Your task to perform on an android device: Go to notification settings Image 0: 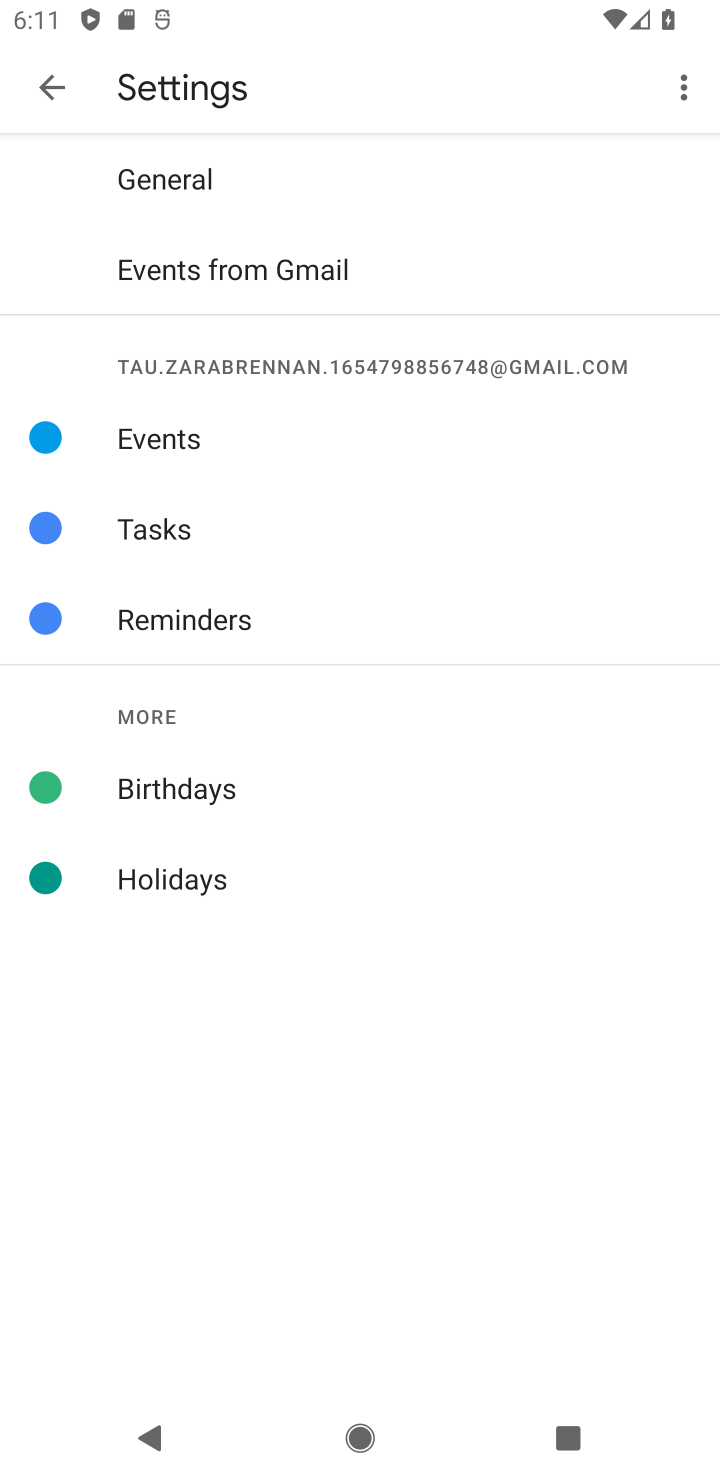
Step 0: press home button
Your task to perform on an android device: Go to notification settings Image 1: 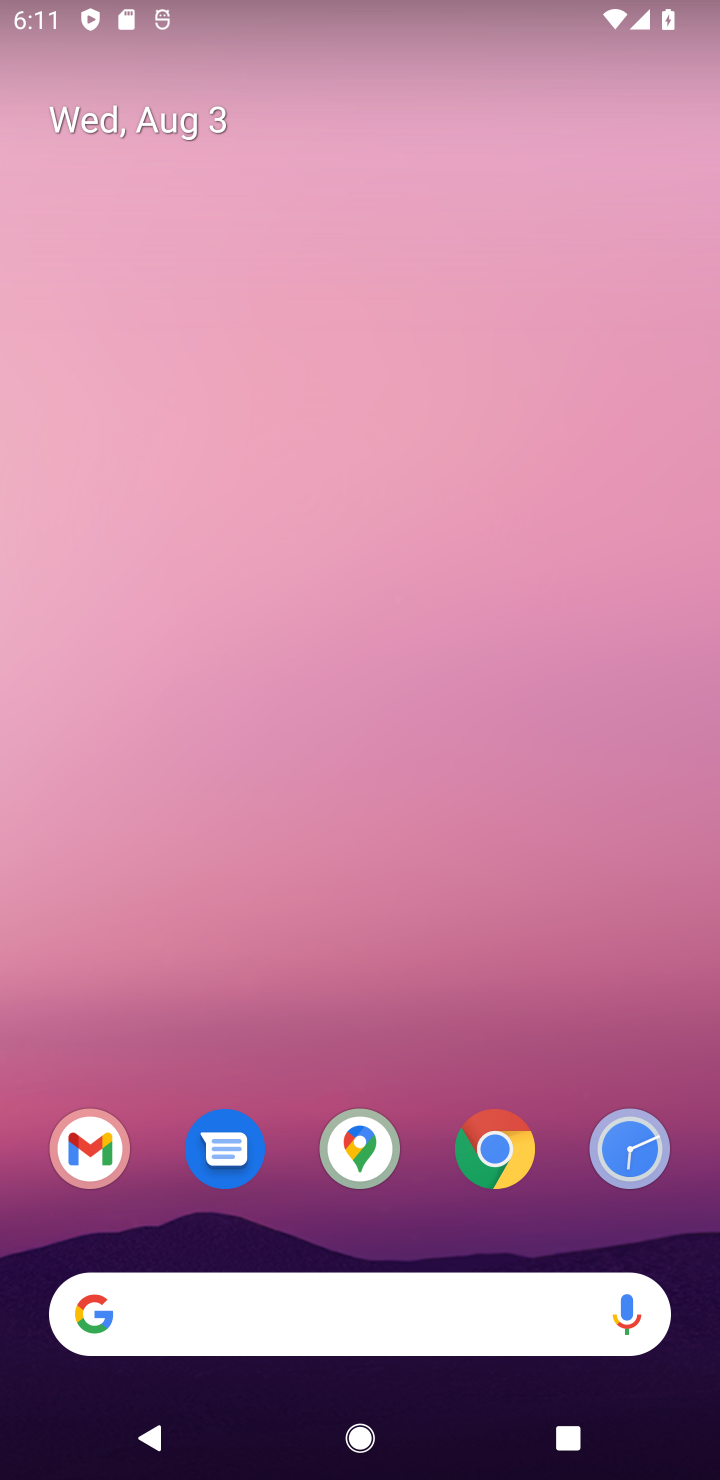
Step 1: drag from (376, 1296) to (351, 74)
Your task to perform on an android device: Go to notification settings Image 2: 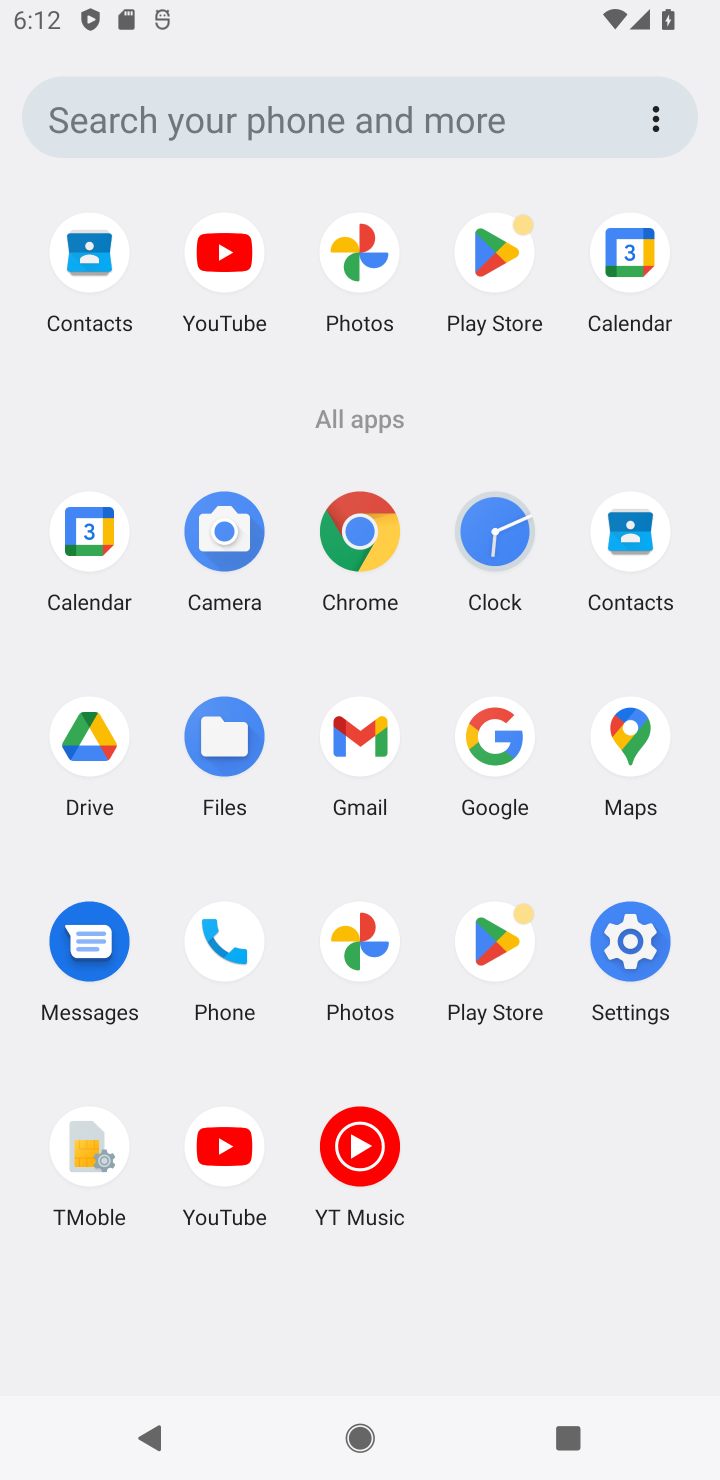
Step 2: click (656, 945)
Your task to perform on an android device: Go to notification settings Image 3: 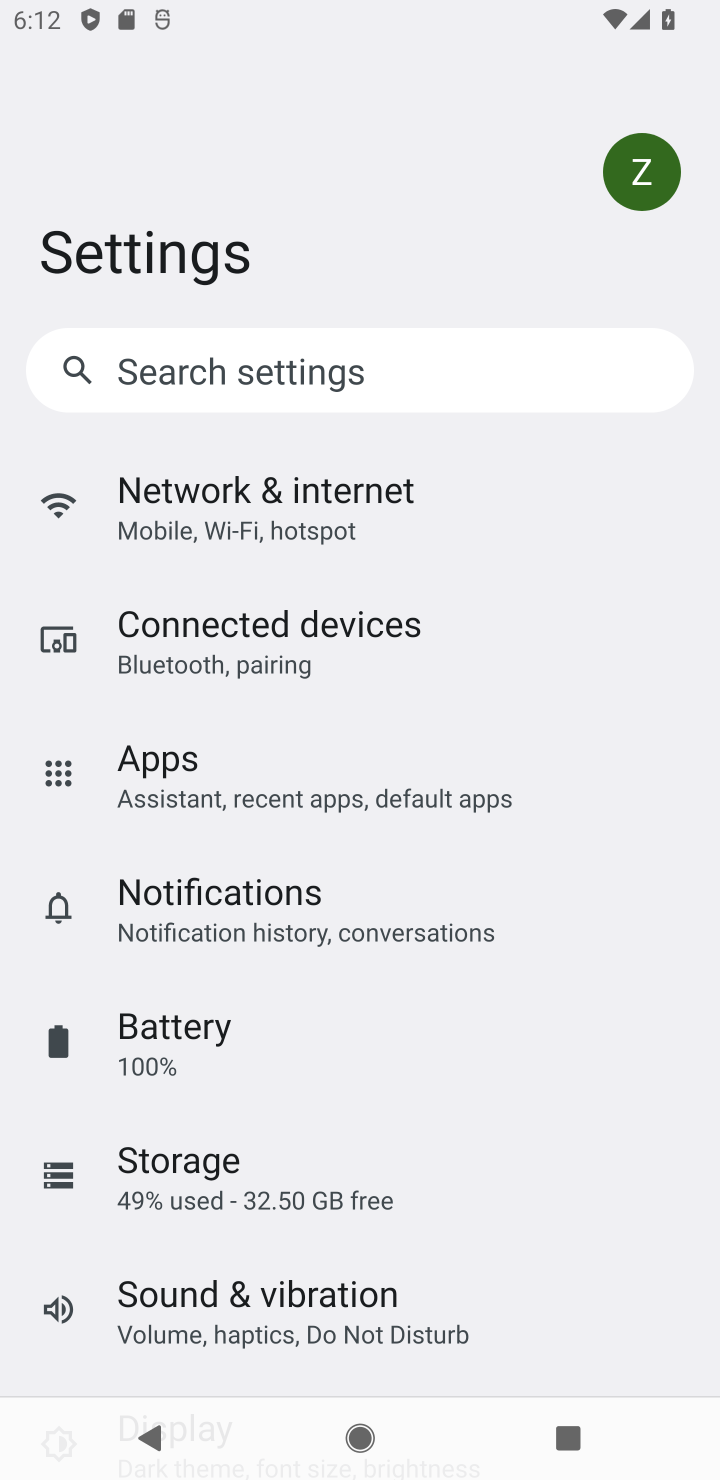
Step 3: drag from (324, 1138) to (361, 354)
Your task to perform on an android device: Go to notification settings Image 4: 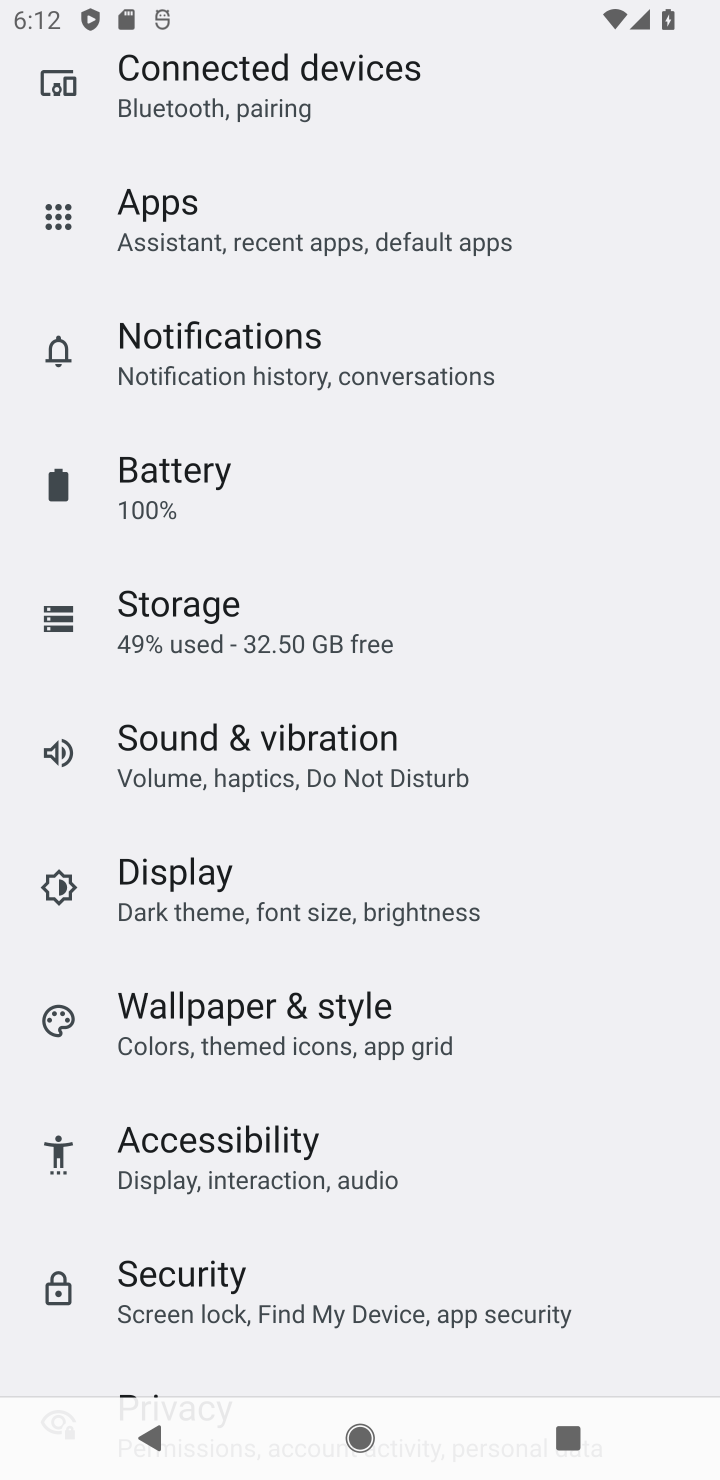
Step 4: click (338, 382)
Your task to perform on an android device: Go to notification settings Image 5: 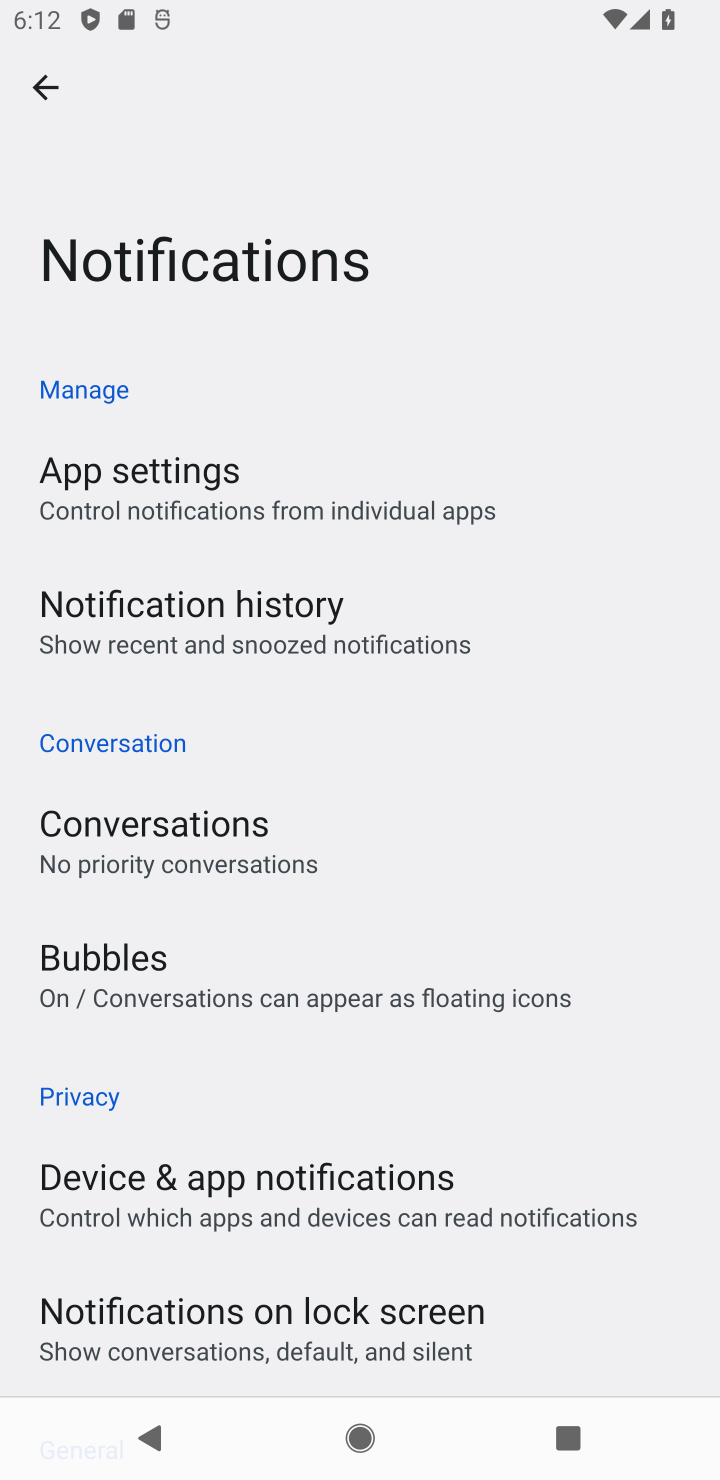
Step 5: task complete